Your task to perform on an android device: change text size in settings app Image 0: 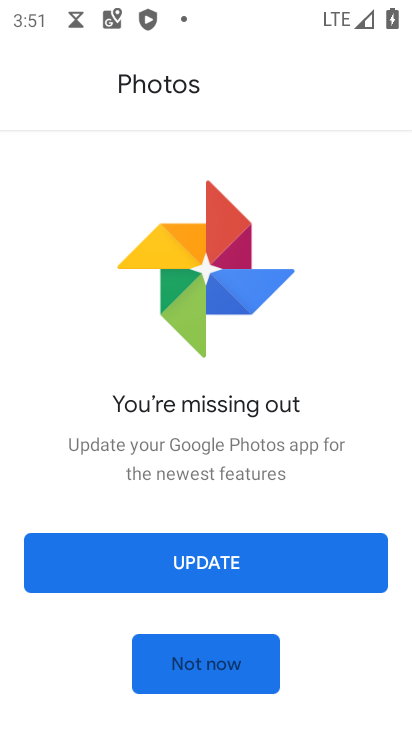
Step 0: press home button
Your task to perform on an android device: change text size in settings app Image 1: 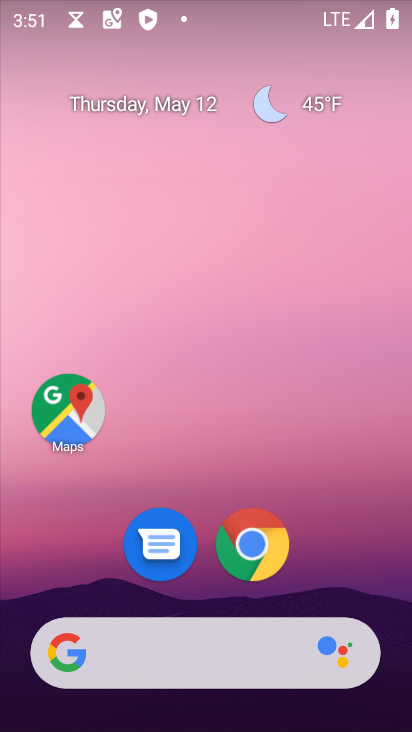
Step 1: drag from (326, 587) to (318, 190)
Your task to perform on an android device: change text size in settings app Image 2: 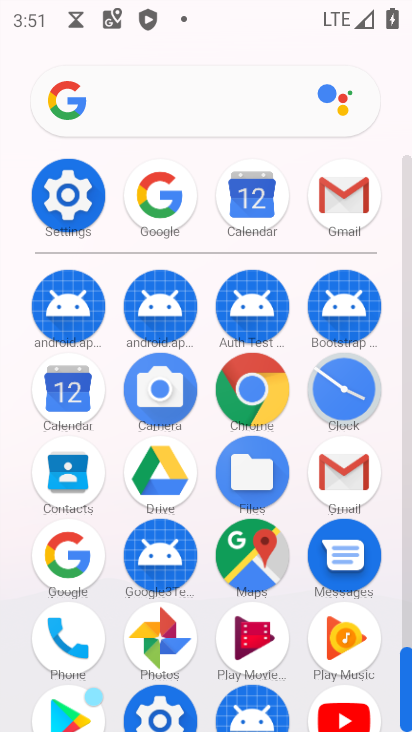
Step 2: click (55, 199)
Your task to perform on an android device: change text size in settings app Image 3: 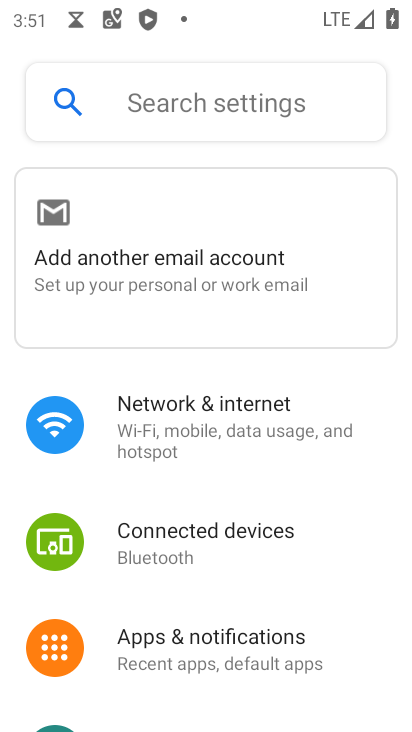
Step 3: drag from (222, 589) to (215, 384)
Your task to perform on an android device: change text size in settings app Image 4: 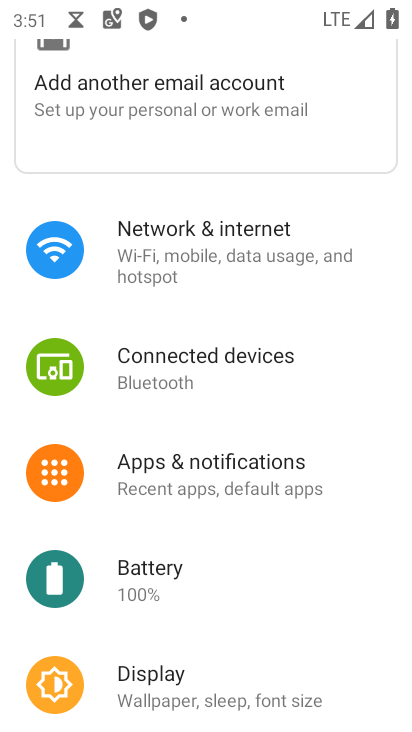
Step 4: drag from (238, 440) to (260, 384)
Your task to perform on an android device: change text size in settings app Image 5: 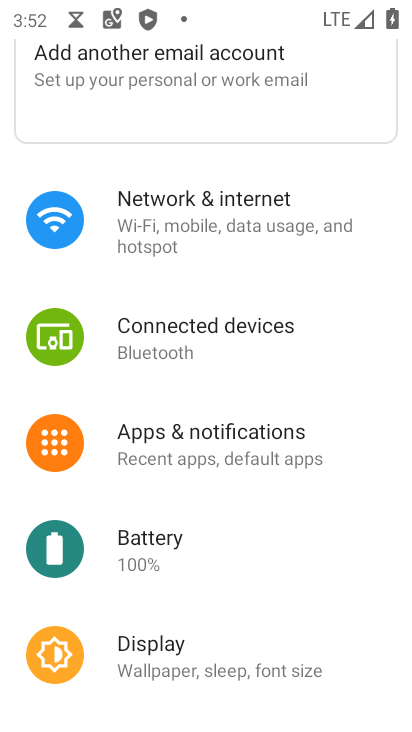
Step 5: click (226, 652)
Your task to perform on an android device: change text size in settings app Image 6: 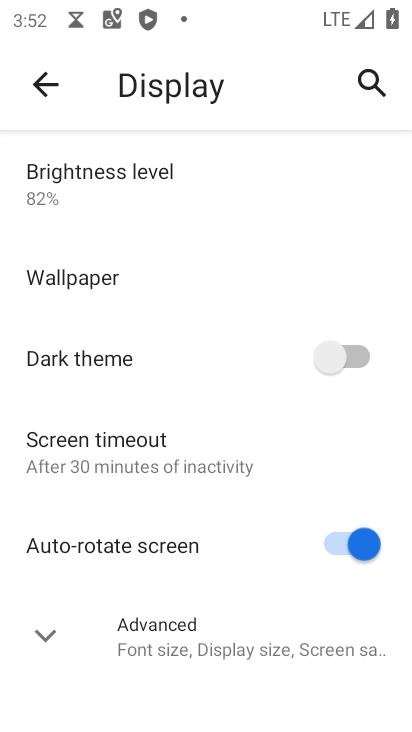
Step 6: click (217, 652)
Your task to perform on an android device: change text size in settings app Image 7: 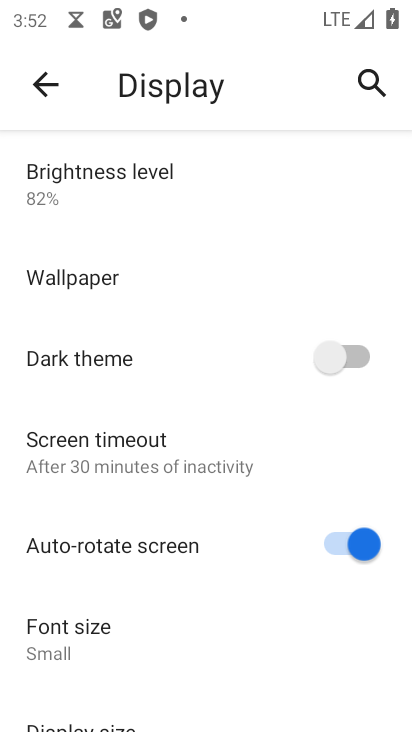
Step 7: drag from (251, 618) to (248, 320)
Your task to perform on an android device: change text size in settings app Image 8: 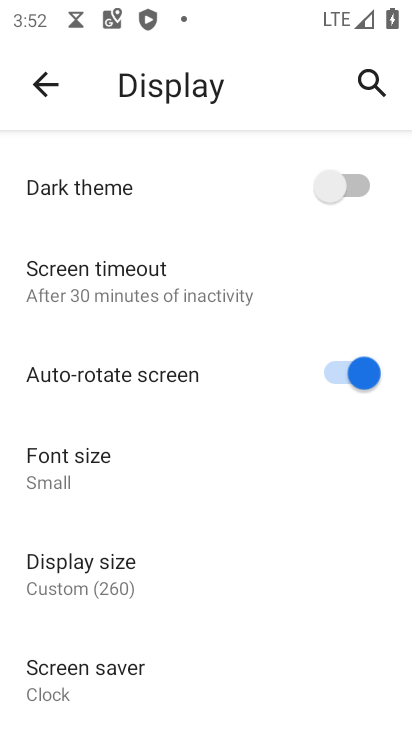
Step 8: click (112, 482)
Your task to perform on an android device: change text size in settings app Image 9: 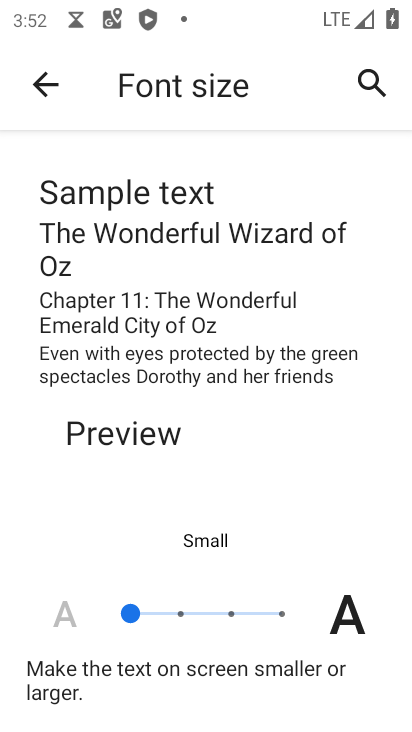
Step 9: click (231, 614)
Your task to perform on an android device: change text size in settings app Image 10: 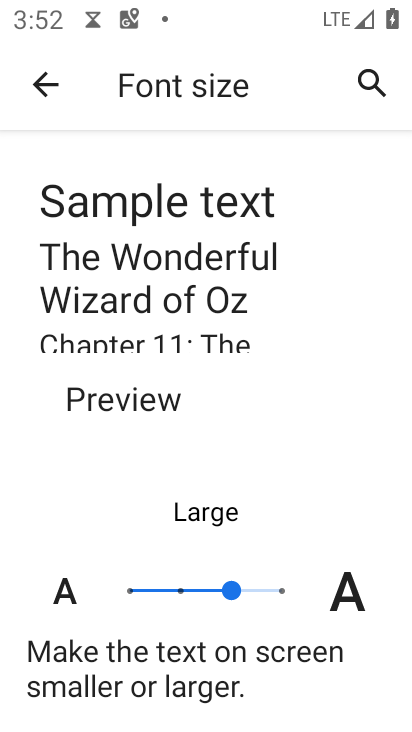
Step 10: task complete